Your task to perform on an android device: open app "LinkedIn" (install if not already installed), go to login, and select forgot password Image 0: 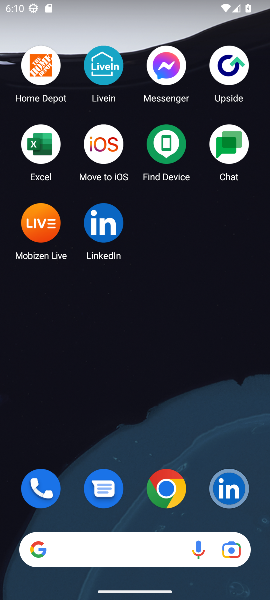
Step 0: click (233, 501)
Your task to perform on an android device: open app "LinkedIn" (install if not already installed), go to login, and select forgot password Image 1: 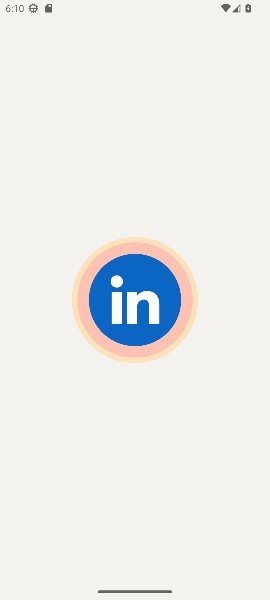
Step 1: task complete